Your task to perform on an android device: turn on translation in the chrome app Image 0: 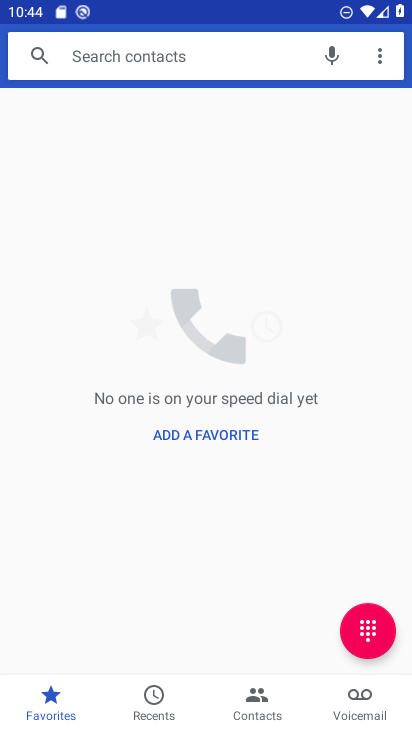
Step 0: press home button
Your task to perform on an android device: turn on translation in the chrome app Image 1: 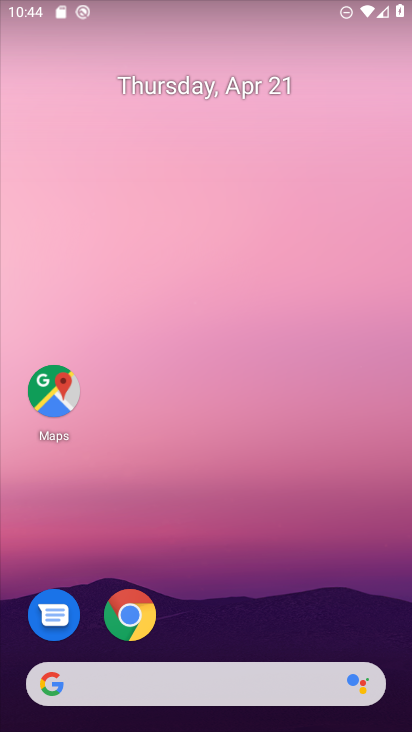
Step 1: click (127, 618)
Your task to perform on an android device: turn on translation in the chrome app Image 2: 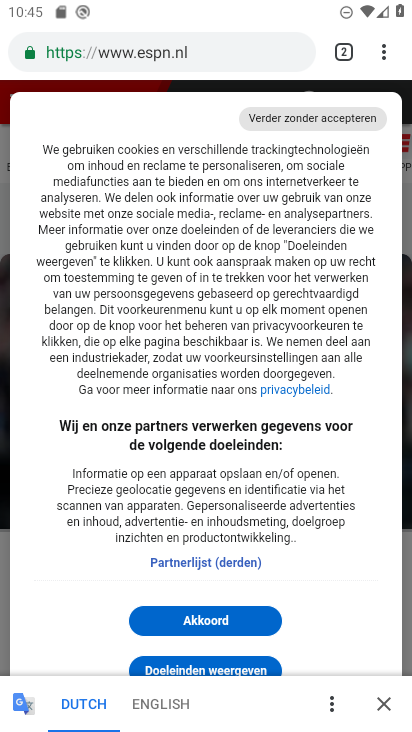
Step 2: drag from (385, 52) to (234, 622)
Your task to perform on an android device: turn on translation in the chrome app Image 3: 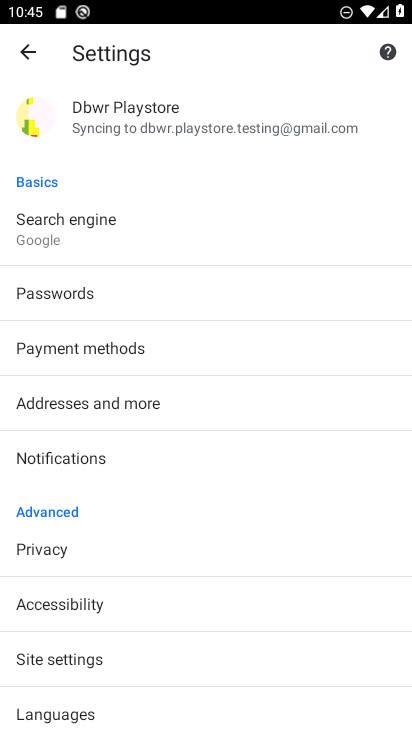
Step 3: drag from (135, 691) to (181, 359)
Your task to perform on an android device: turn on translation in the chrome app Image 4: 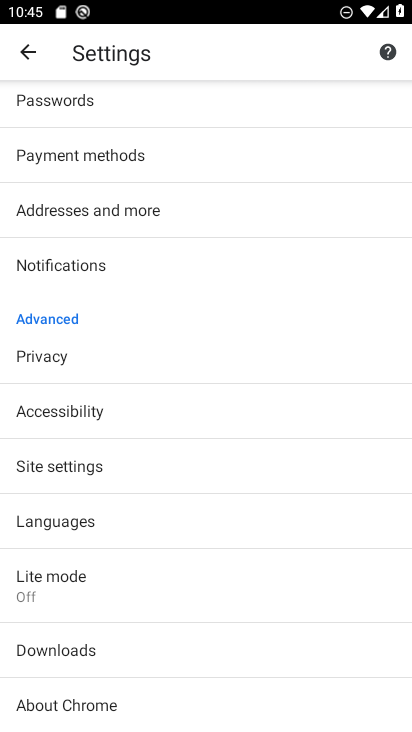
Step 4: click (65, 523)
Your task to perform on an android device: turn on translation in the chrome app Image 5: 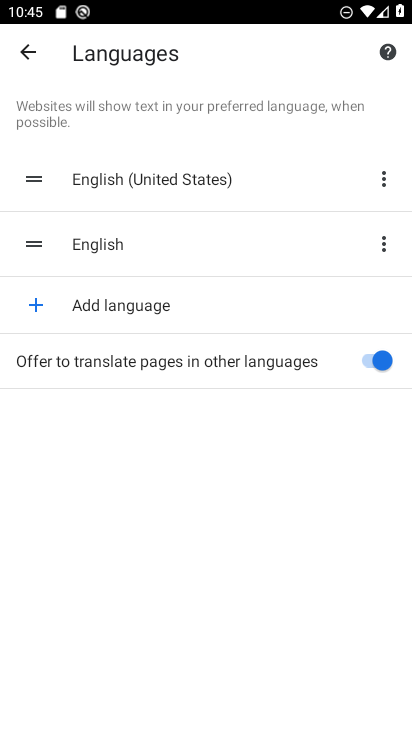
Step 5: task complete